Your task to perform on an android device: open app "Google Chat" (install if not already installed) Image 0: 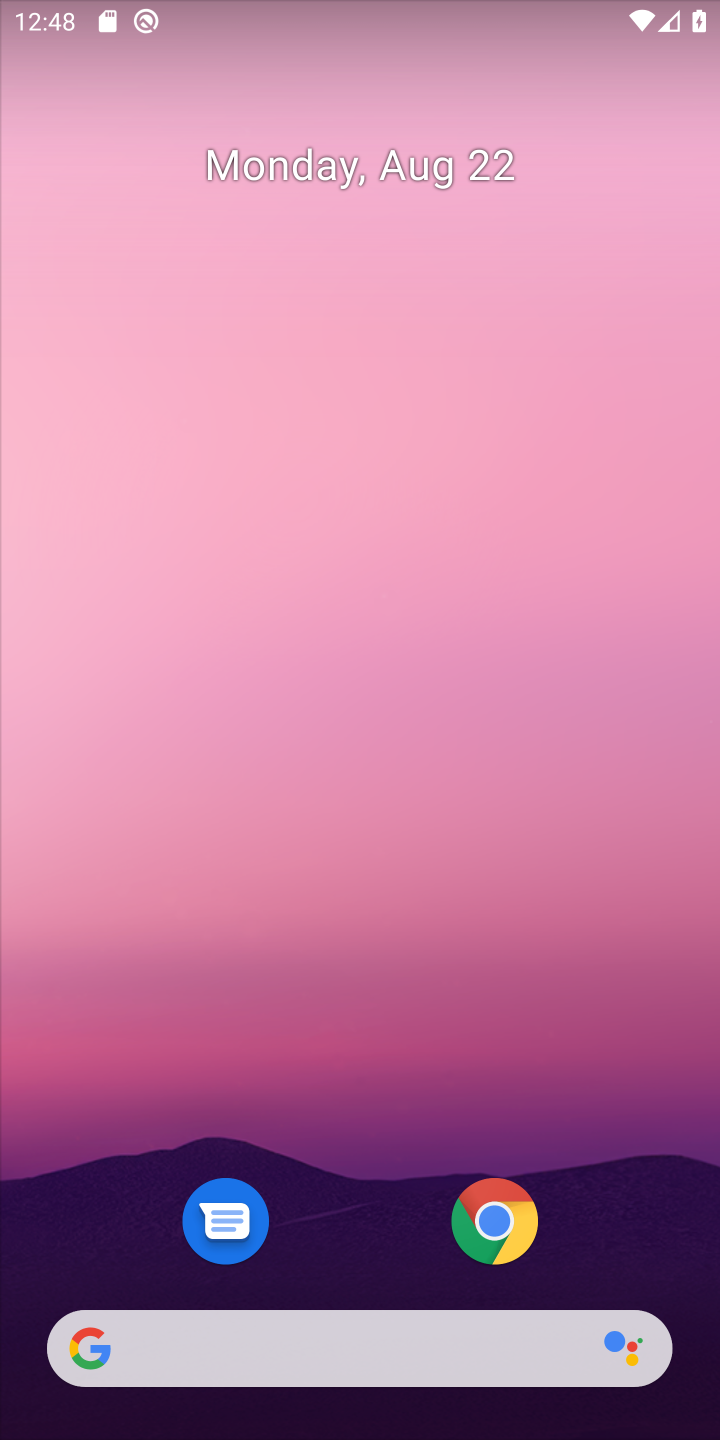
Step 0: drag from (351, 1277) to (325, 208)
Your task to perform on an android device: open app "Google Chat" (install if not already installed) Image 1: 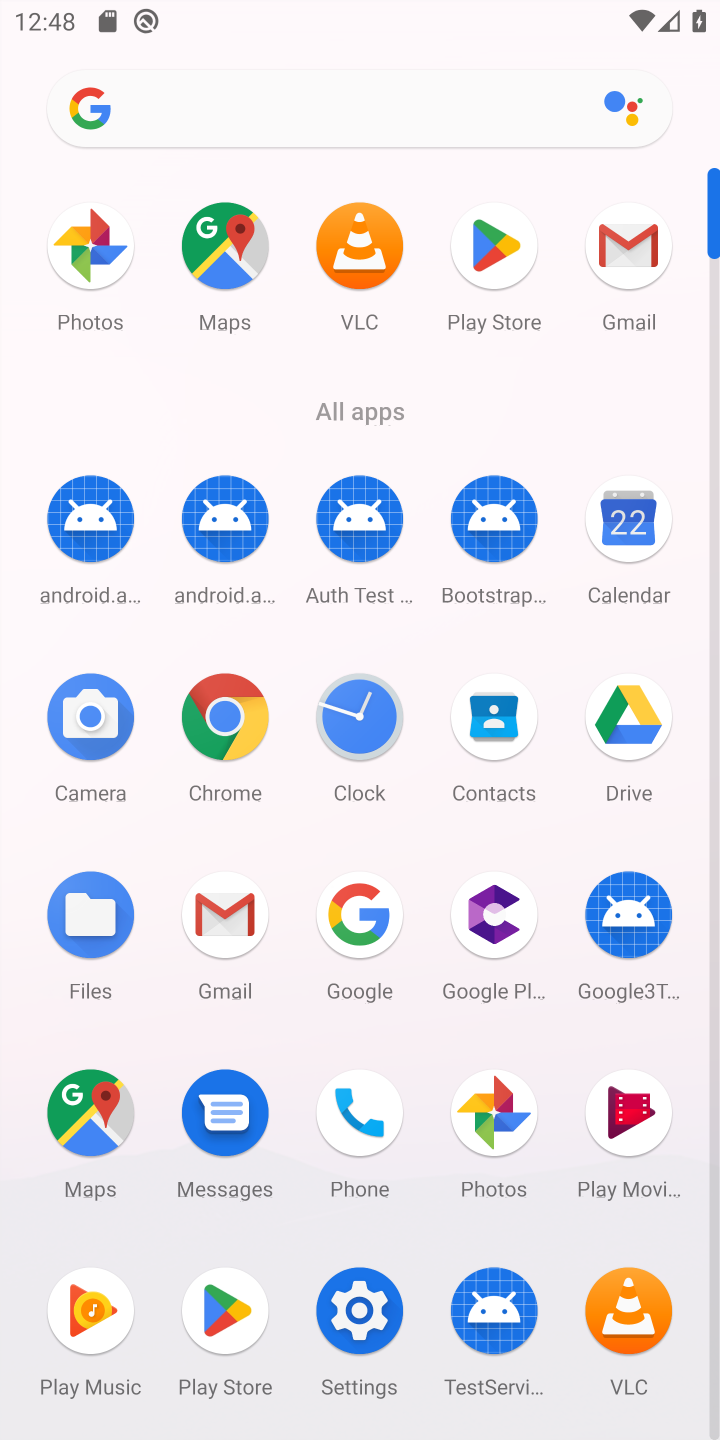
Step 1: click (482, 234)
Your task to perform on an android device: open app "Google Chat" (install if not already installed) Image 2: 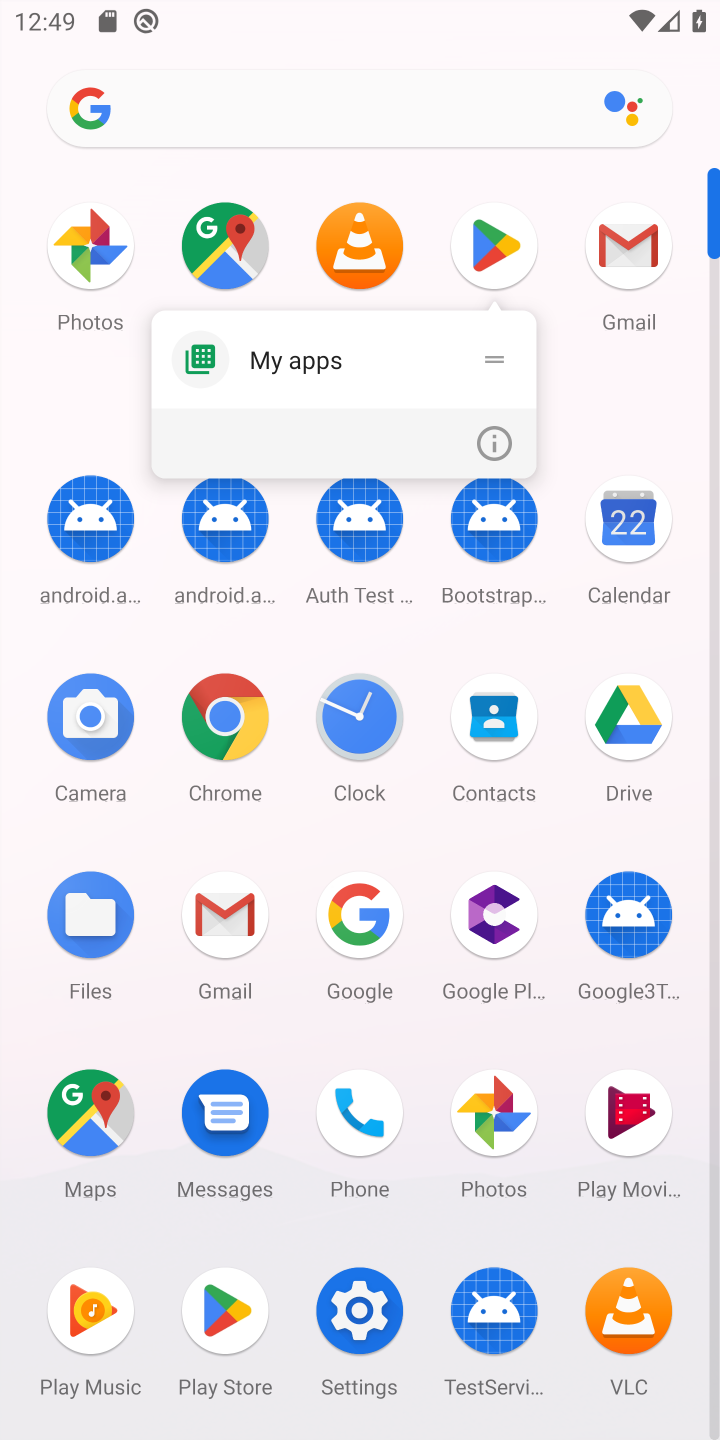
Step 2: click (474, 222)
Your task to perform on an android device: open app "Google Chat" (install if not already installed) Image 3: 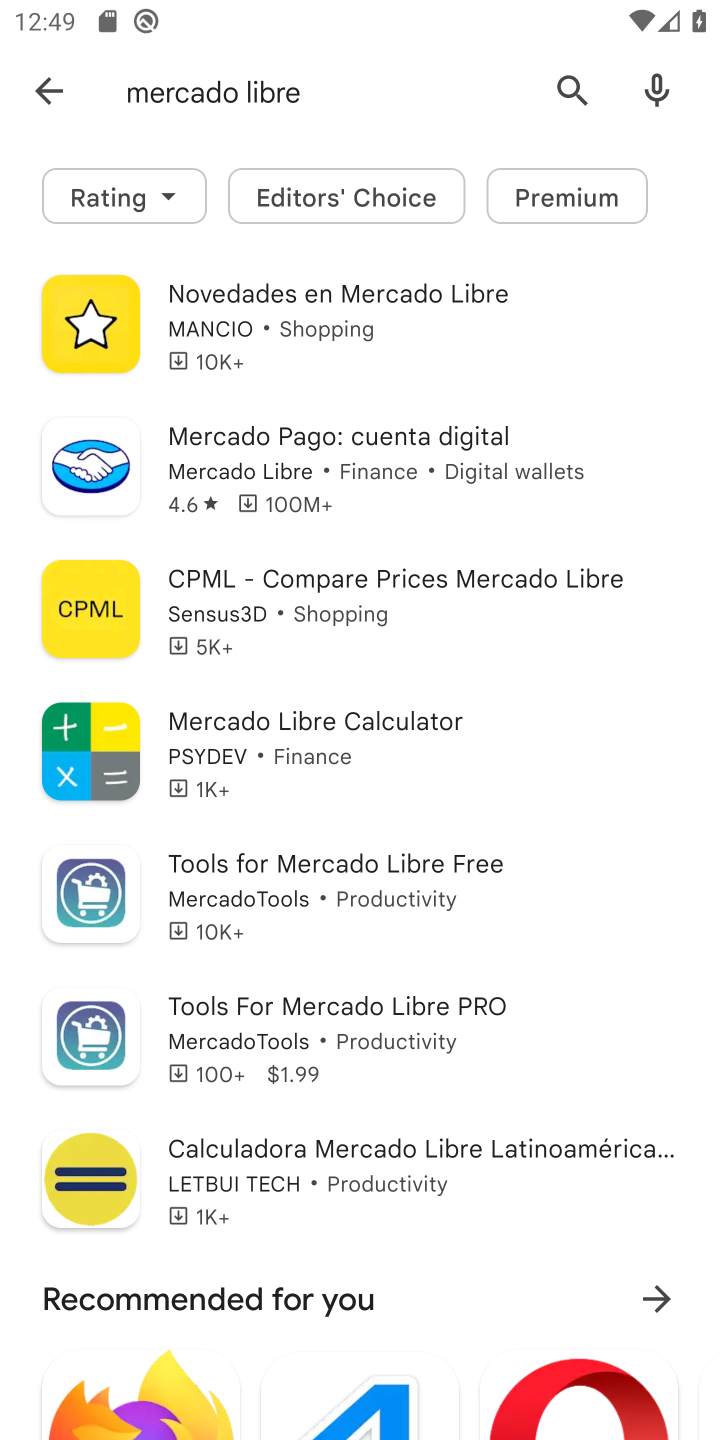
Step 3: click (567, 102)
Your task to perform on an android device: open app "Google Chat" (install if not already installed) Image 4: 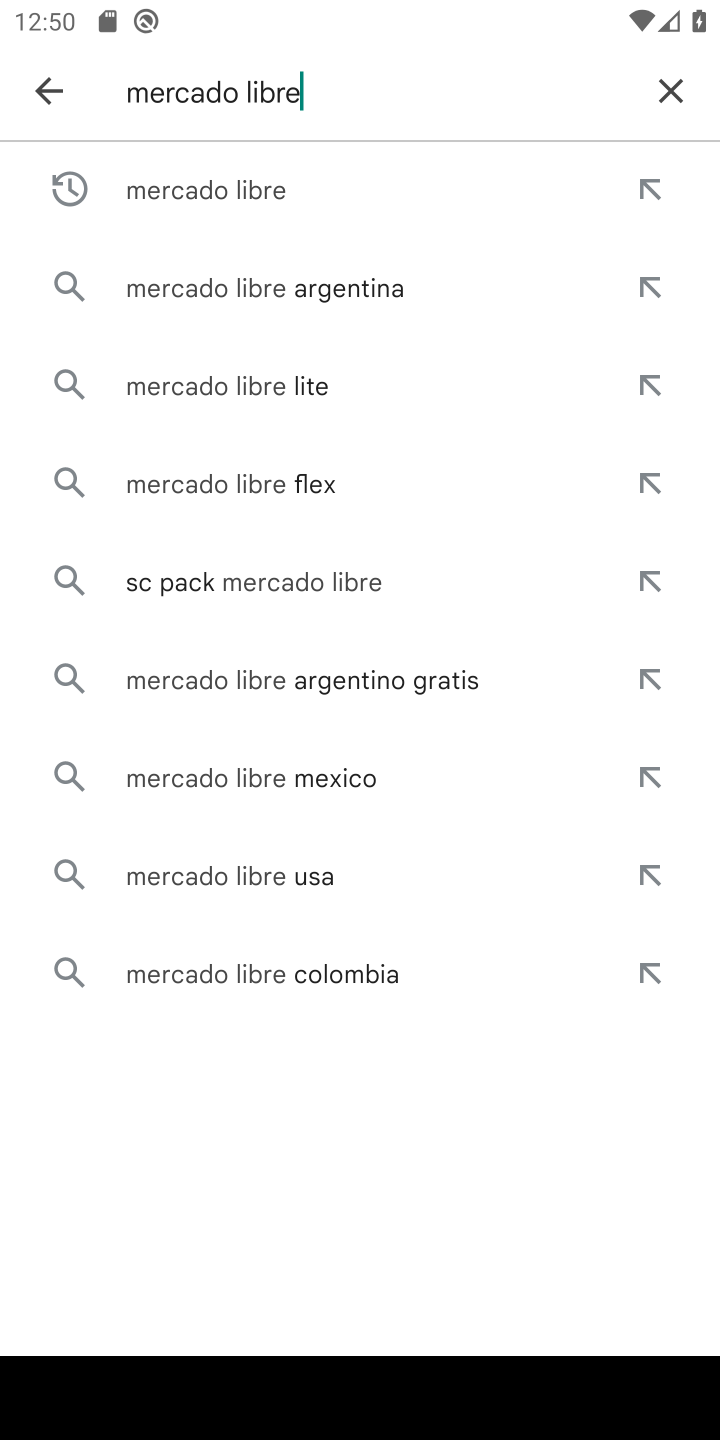
Step 4: click (676, 90)
Your task to perform on an android device: open app "Google Chat" (install if not already installed) Image 5: 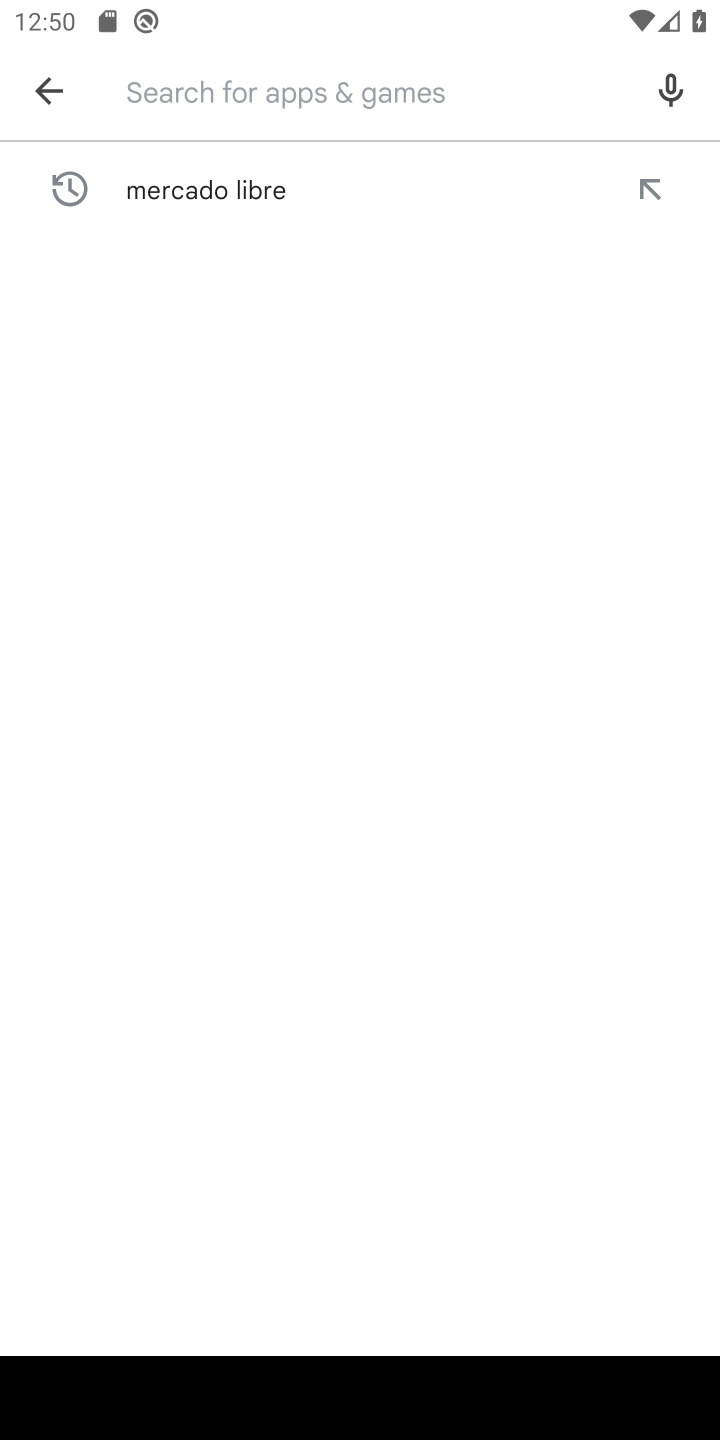
Step 5: type "Google Chat"
Your task to perform on an android device: open app "Google Chat" (install if not already installed) Image 6: 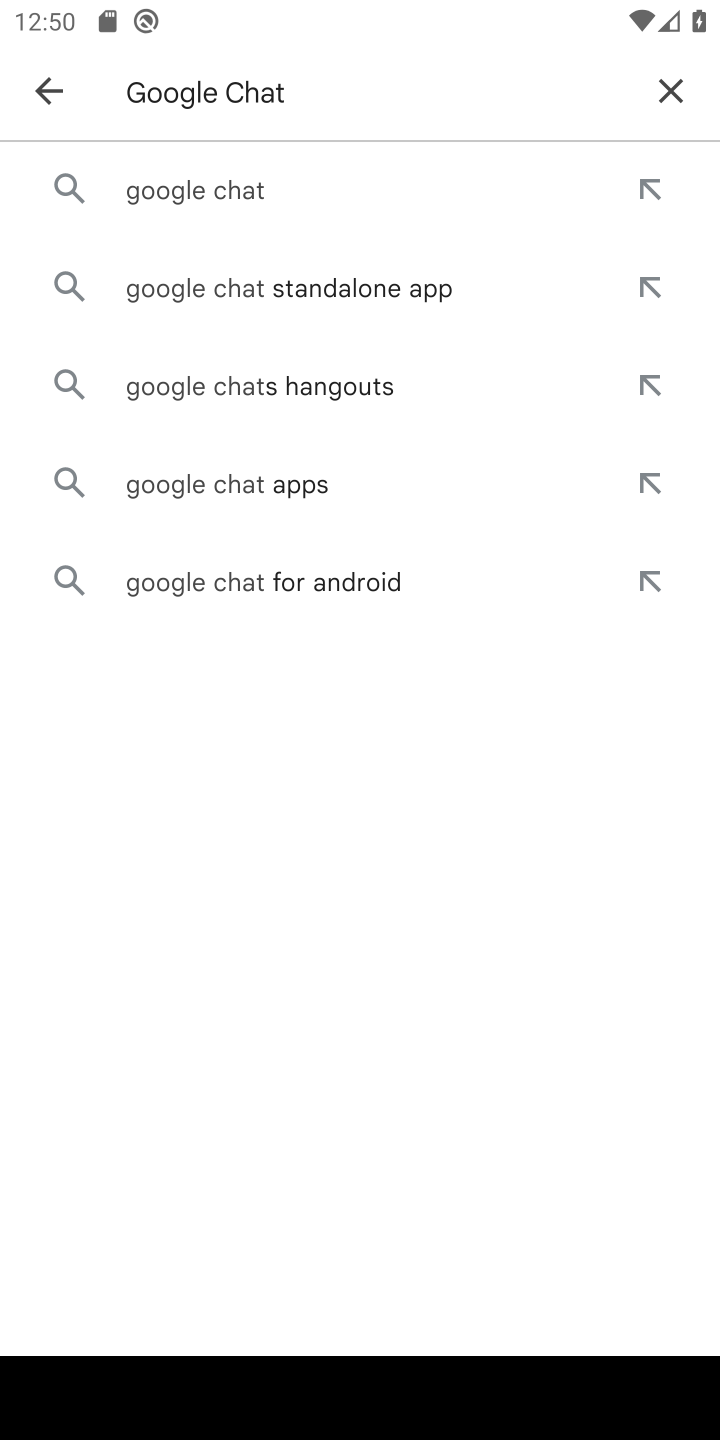
Step 6: click (243, 194)
Your task to perform on an android device: open app "Google Chat" (install if not already installed) Image 7: 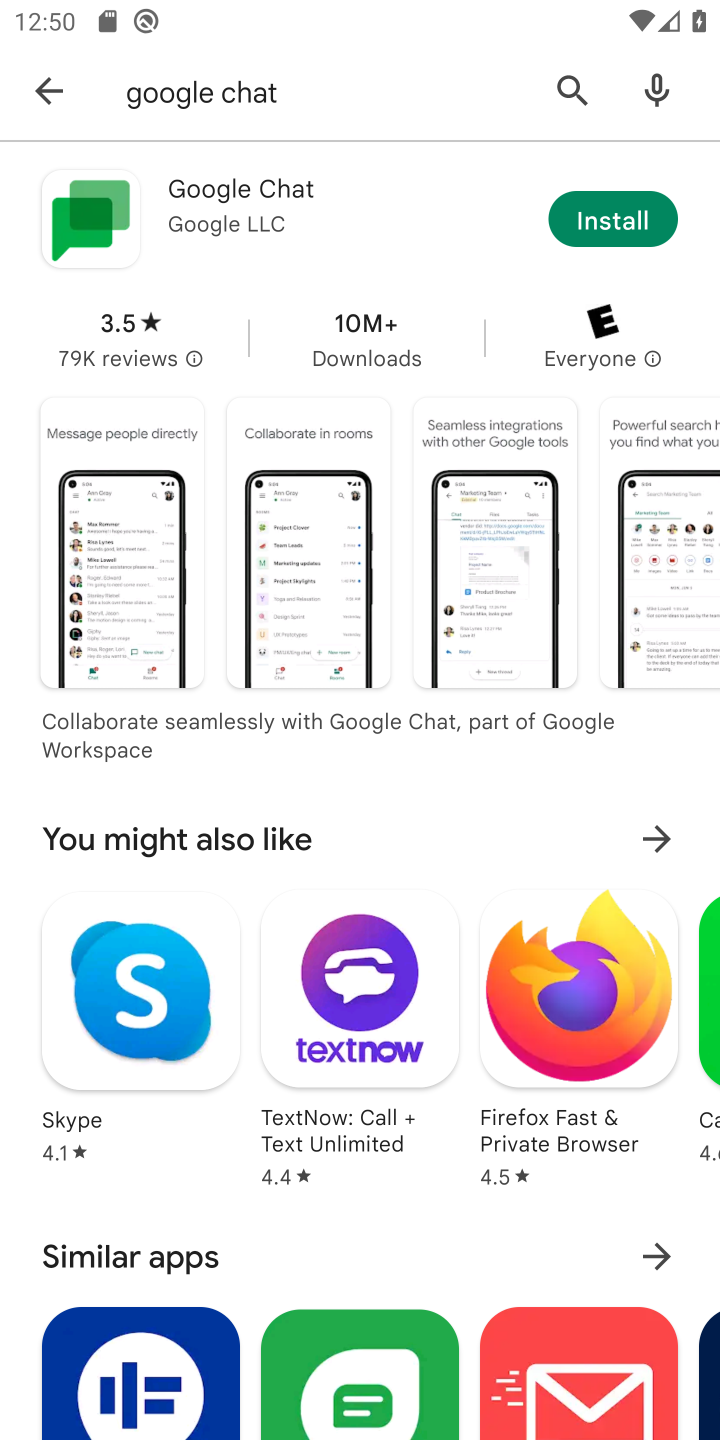
Step 7: click (635, 216)
Your task to perform on an android device: open app "Google Chat" (install if not already installed) Image 8: 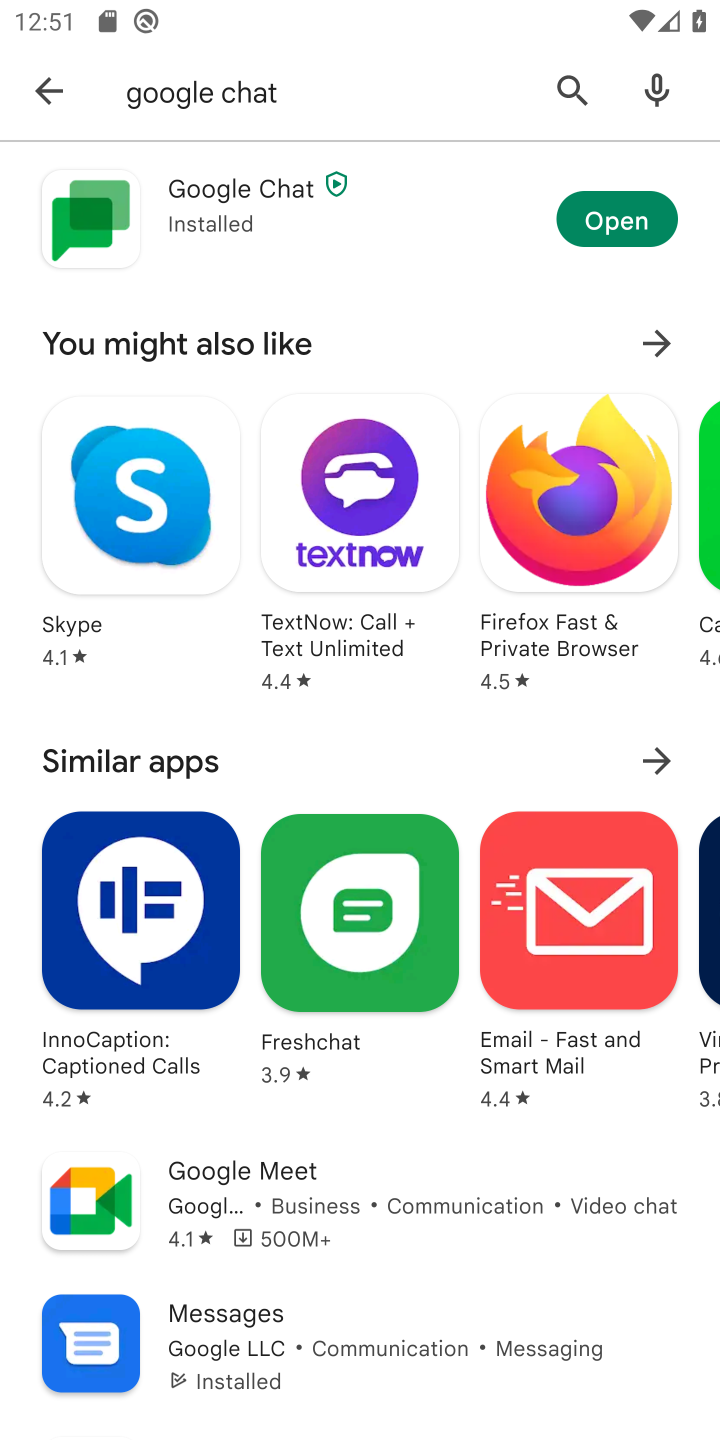
Step 8: click (619, 214)
Your task to perform on an android device: open app "Google Chat" (install if not already installed) Image 9: 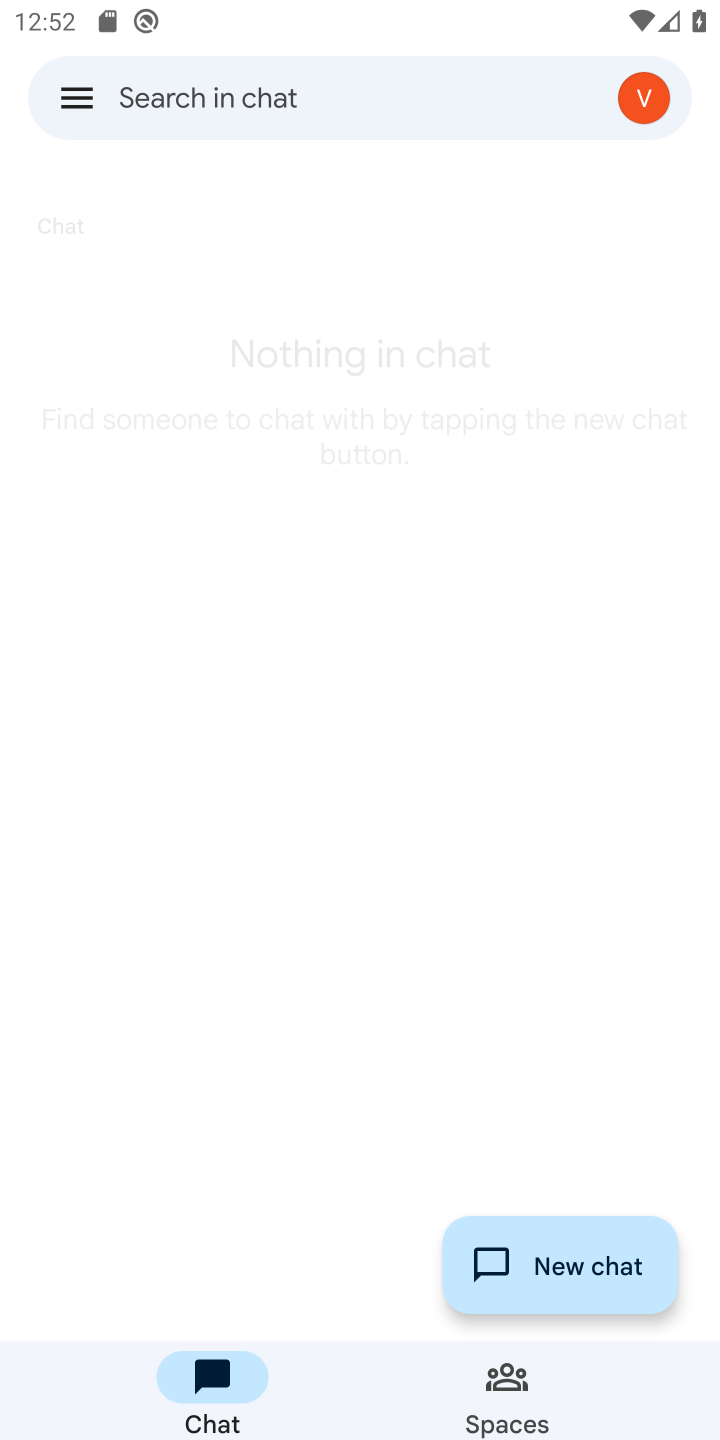
Step 9: task complete